Your task to perform on an android device: Search for vegetarian restaurants on Maps Image 0: 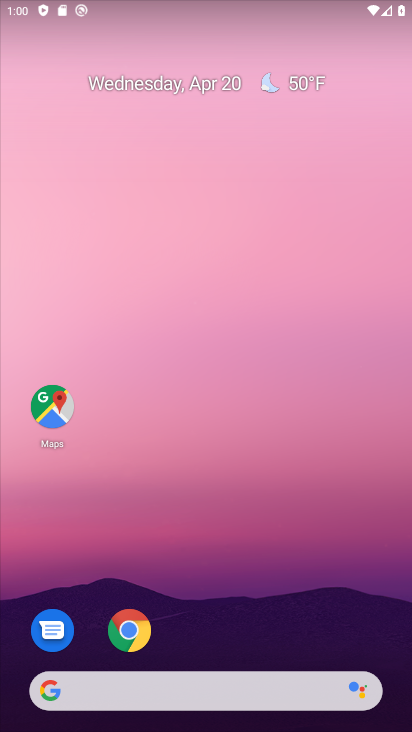
Step 0: click (53, 413)
Your task to perform on an android device: Search for vegetarian restaurants on Maps Image 1: 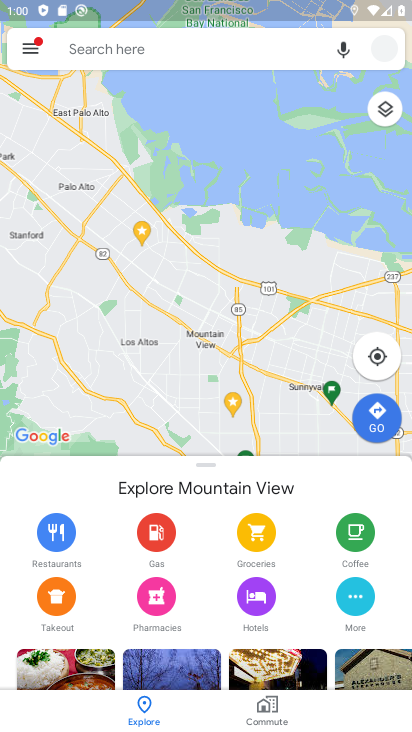
Step 1: click (162, 57)
Your task to perform on an android device: Search for vegetarian restaurants on Maps Image 2: 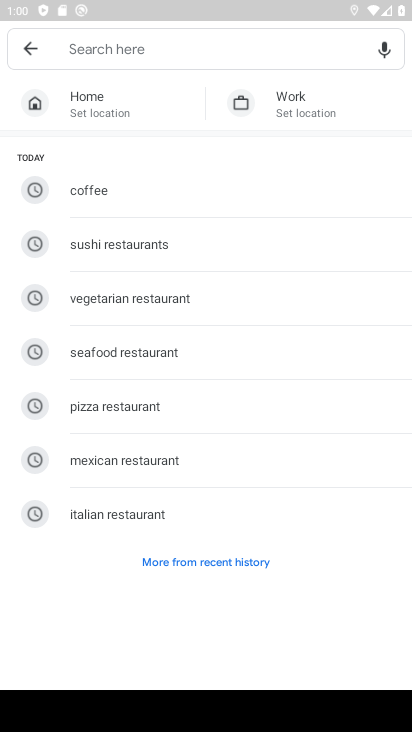
Step 2: click (147, 296)
Your task to perform on an android device: Search for vegetarian restaurants on Maps Image 3: 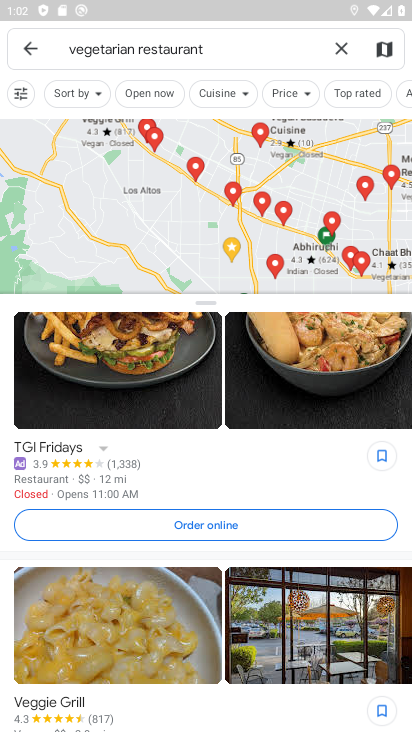
Step 3: task complete